Your task to perform on an android device: Go to Amazon Image 0: 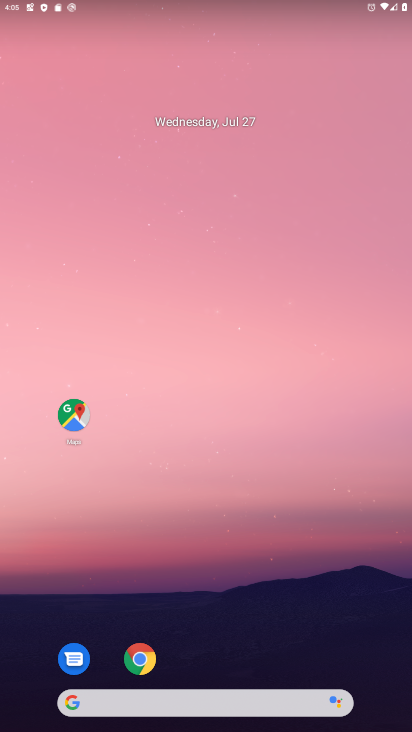
Step 0: click (143, 668)
Your task to perform on an android device: Go to Amazon Image 1: 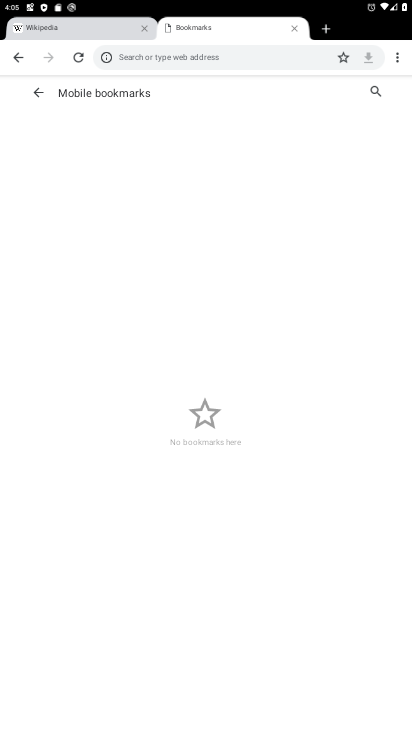
Step 1: click (216, 55)
Your task to perform on an android device: Go to Amazon Image 2: 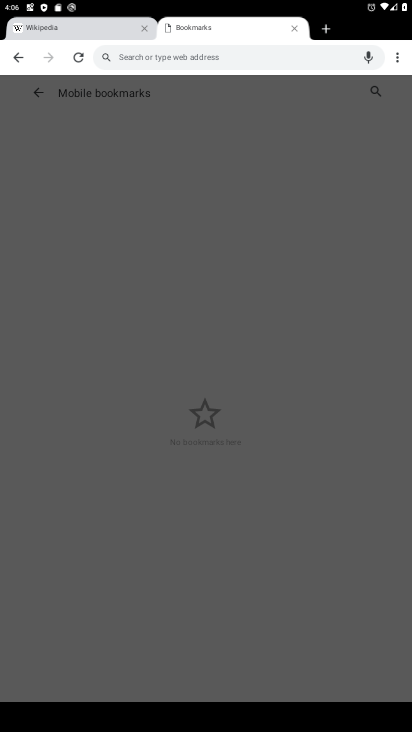
Step 2: type "amazon"
Your task to perform on an android device: Go to Amazon Image 3: 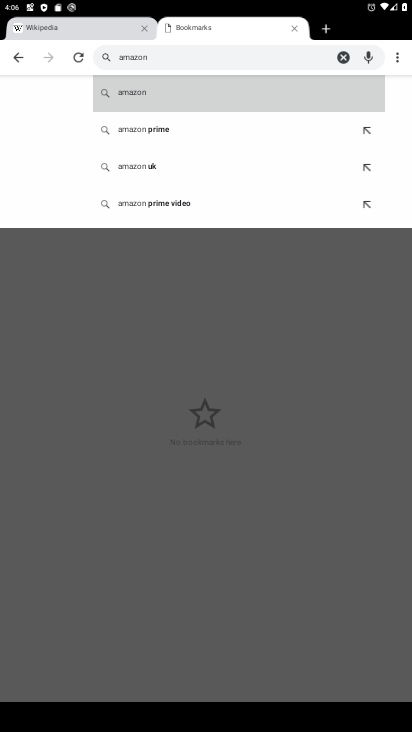
Step 3: click (249, 90)
Your task to perform on an android device: Go to Amazon Image 4: 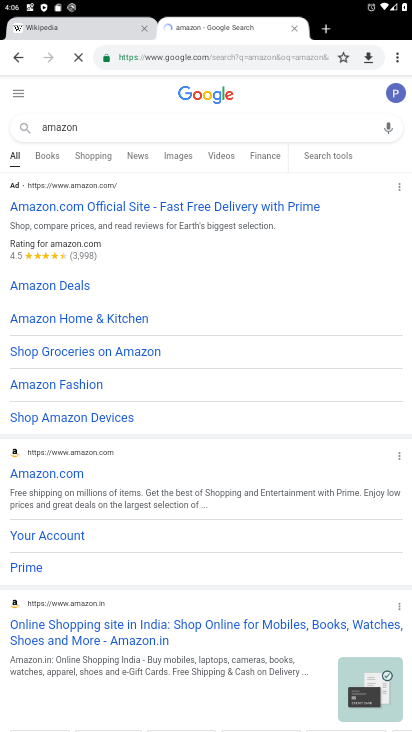
Step 4: click (134, 205)
Your task to perform on an android device: Go to Amazon Image 5: 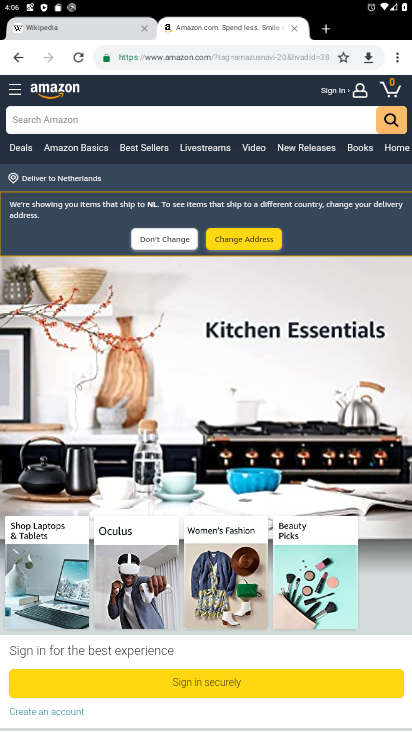
Step 5: task complete